Your task to perform on an android device: empty trash in the gmail app Image 0: 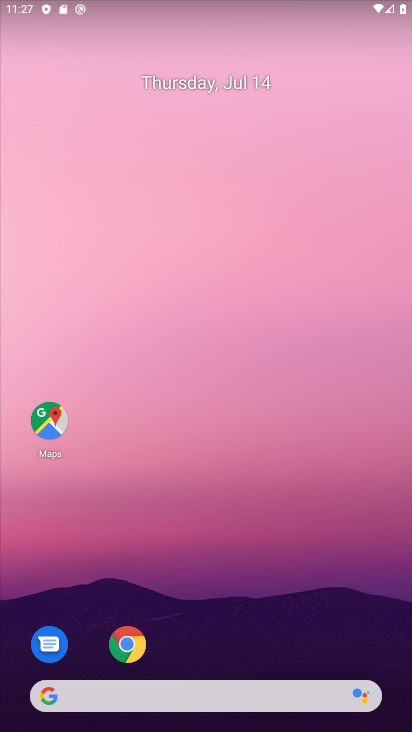
Step 0: drag from (394, 664) to (197, 73)
Your task to perform on an android device: empty trash in the gmail app Image 1: 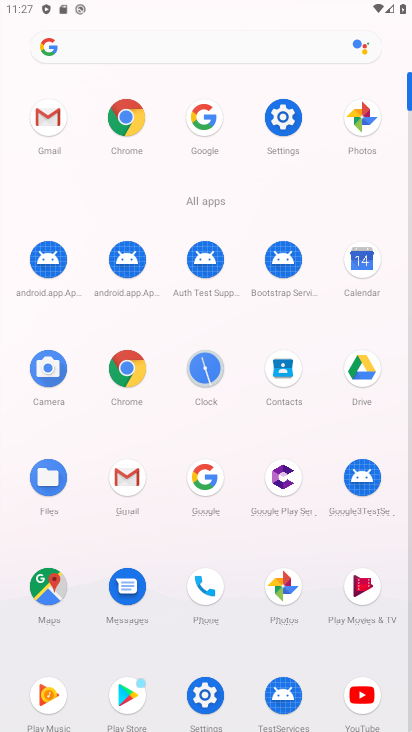
Step 1: click (120, 499)
Your task to perform on an android device: empty trash in the gmail app Image 2: 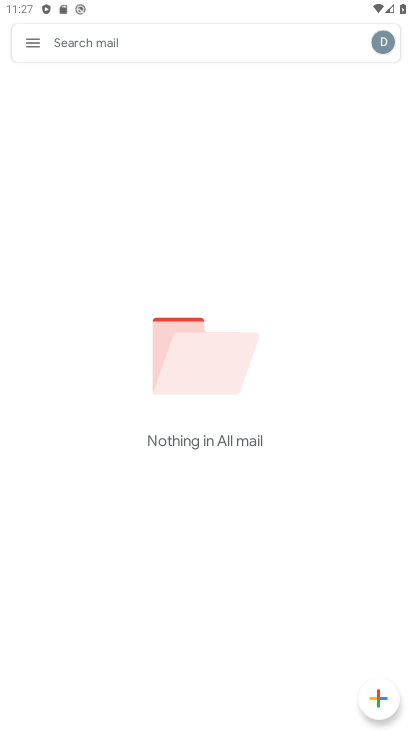
Step 2: click (31, 32)
Your task to perform on an android device: empty trash in the gmail app Image 3: 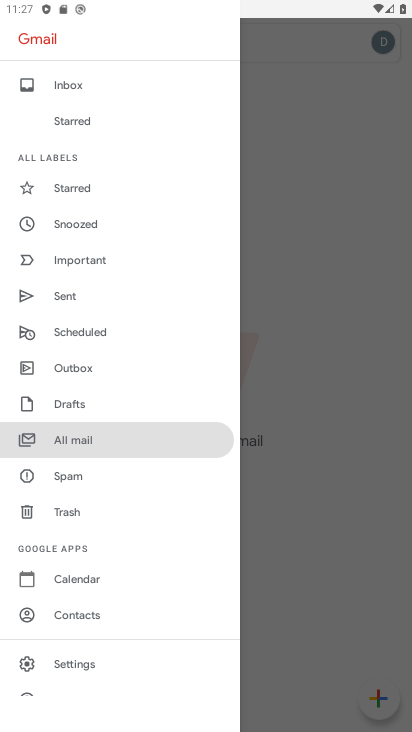
Step 3: click (71, 511)
Your task to perform on an android device: empty trash in the gmail app Image 4: 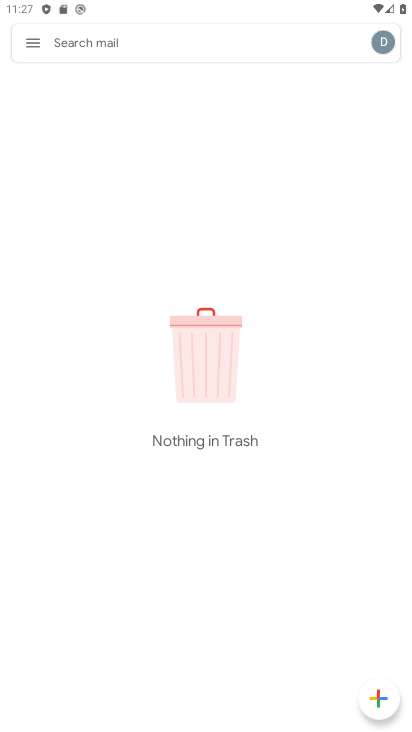
Step 4: task complete